Your task to perform on an android device: Do I have any events this weekend? Image 0: 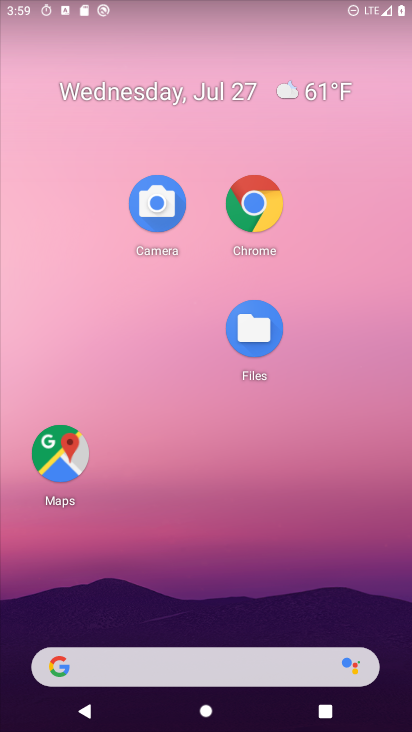
Step 0: drag from (221, 603) to (221, 58)
Your task to perform on an android device: Do I have any events this weekend? Image 1: 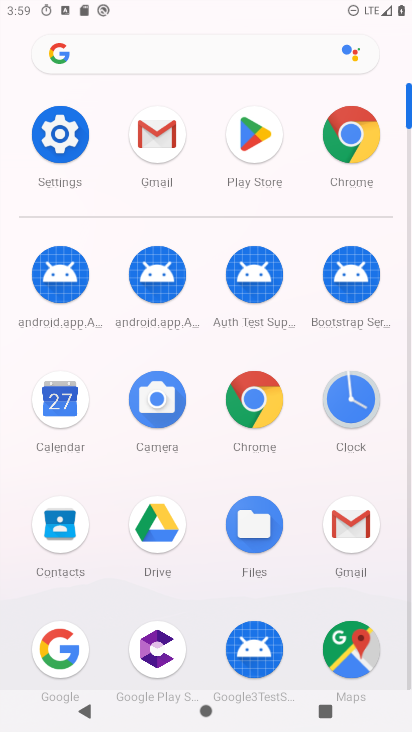
Step 1: click (64, 412)
Your task to perform on an android device: Do I have any events this weekend? Image 2: 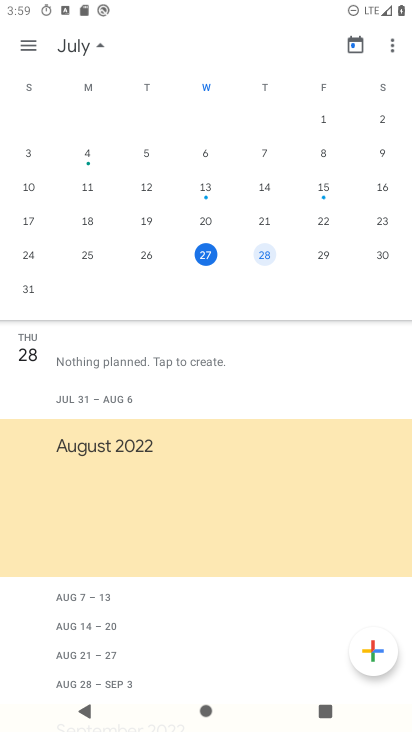
Step 2: click (382, 255)
Your task to perform on an android device: Do I have any events this weekend? Image 3: 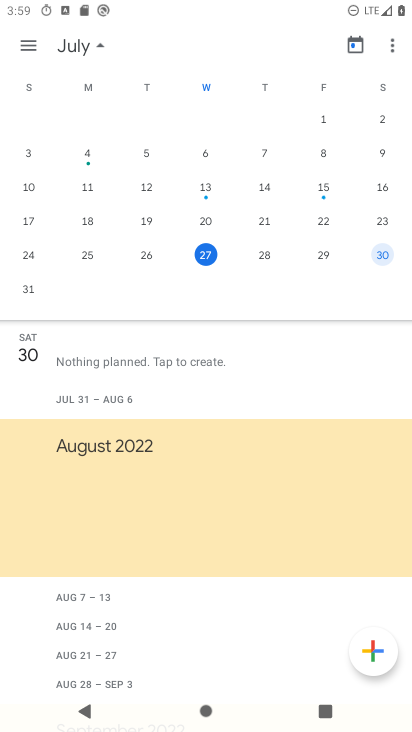
Step 3: click (386, 262)
Your task to perform on an android device: Do I have any events this weekend? Image 4: 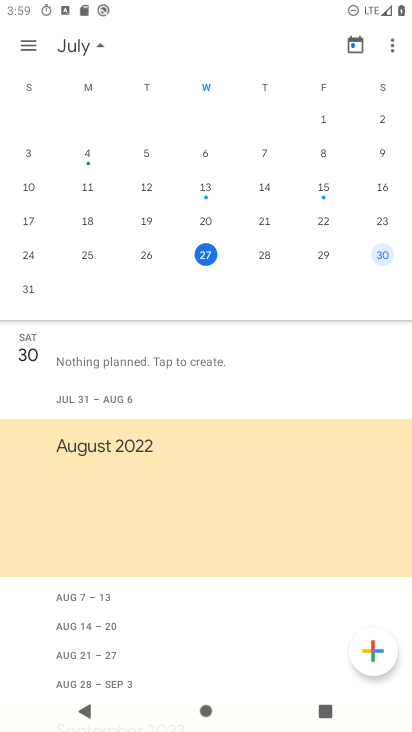
Step 4: task complete